Your task to perform on an android device: install app "Google Translate" Image 0: 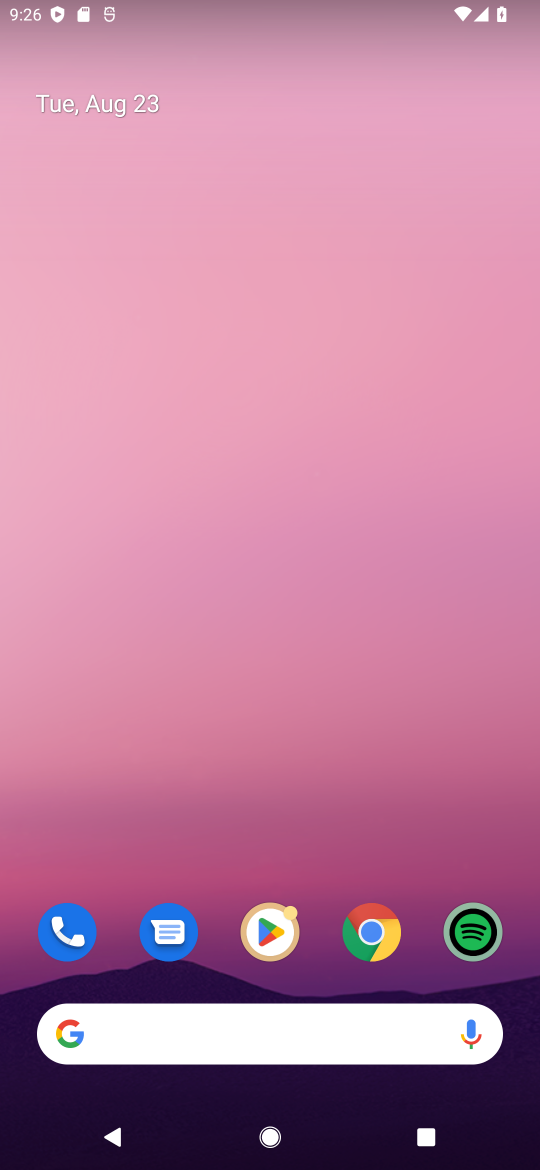
Step 0: click (274, 937)
Your task to perform on an android device: install app "Google Translate" Image 1: 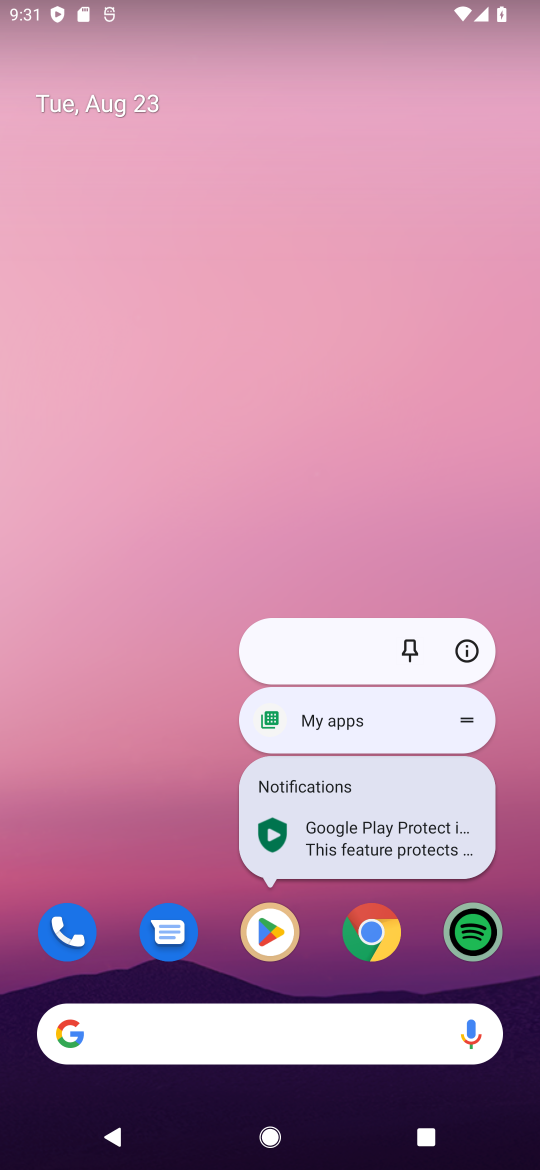
Step 1: click (275, 928)
Your task to perform on an android device: install app "Google Translate" Image 2: 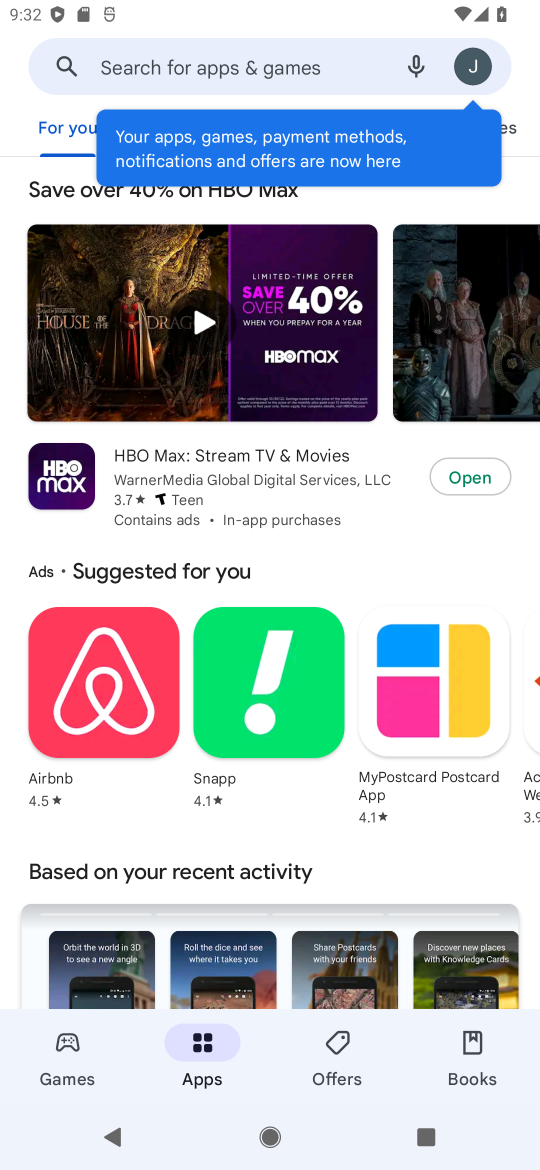
Step 2: click (288, 57)
Your task to perform on an android device: install app "Google Translate" Image 3: 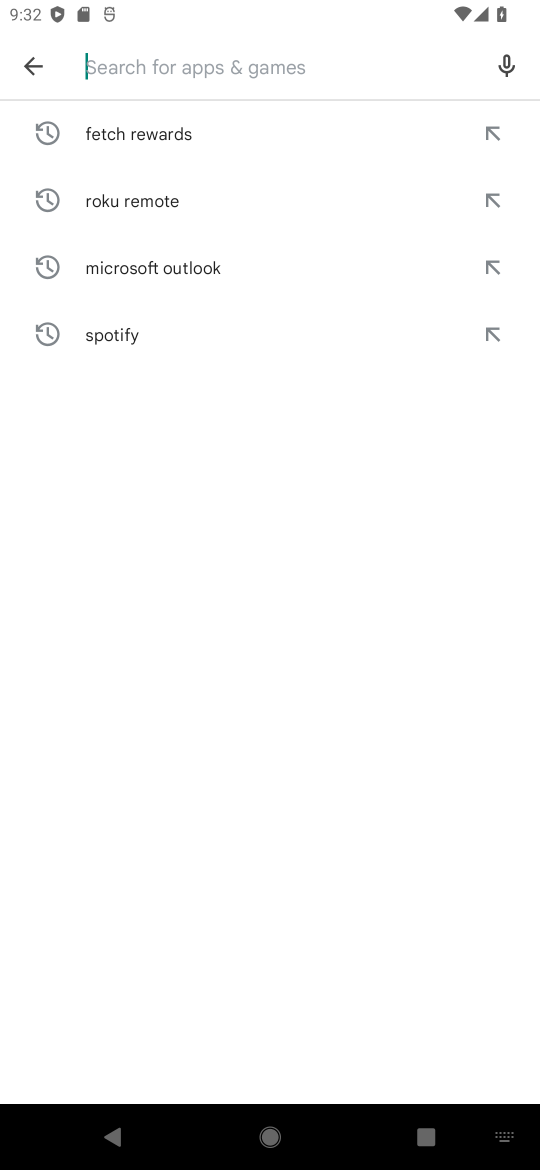
Step 3: click (163, 81)
Your task to perform on an android device: install app "Google Translate" Image 4: 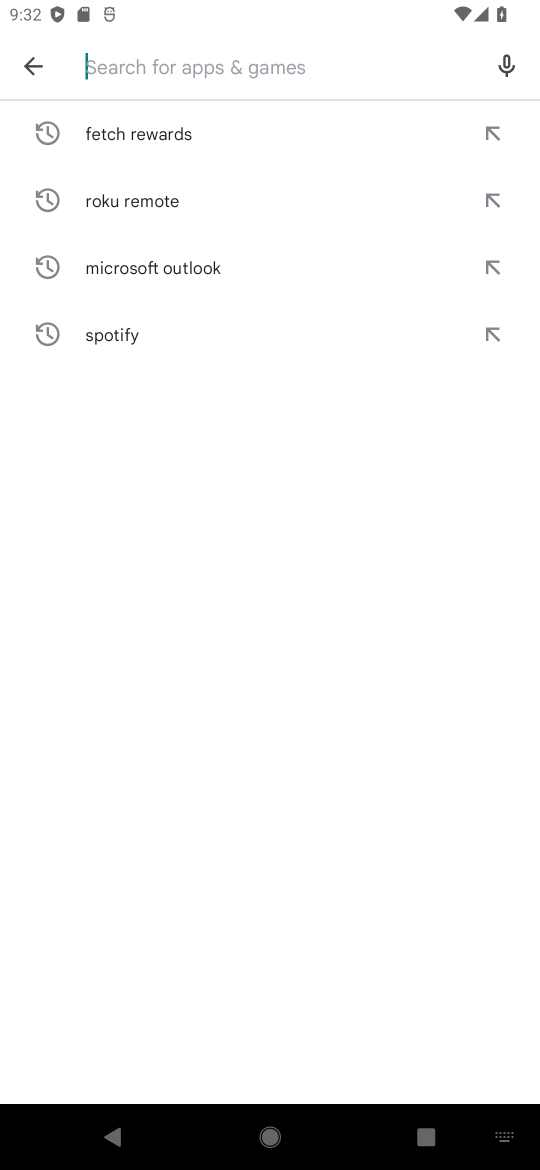
Step 4: type "Google Translat"
Your task to perform on an android device: install app "Google Translate" Image 5: 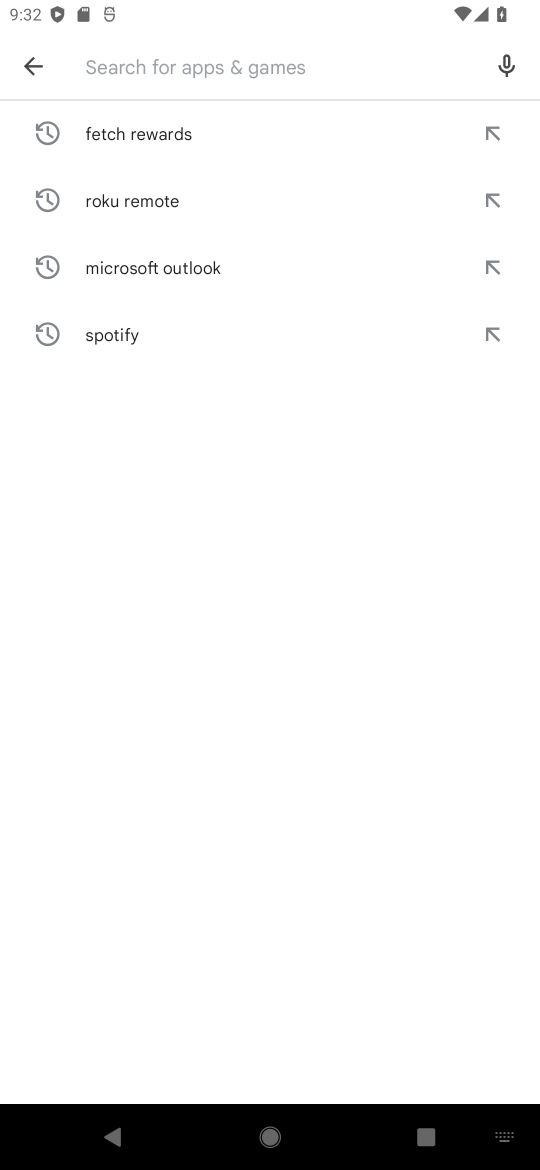
Step 5: click (240, 760)
Your task to perform on an android device: install app "Google Translate" Image 6: 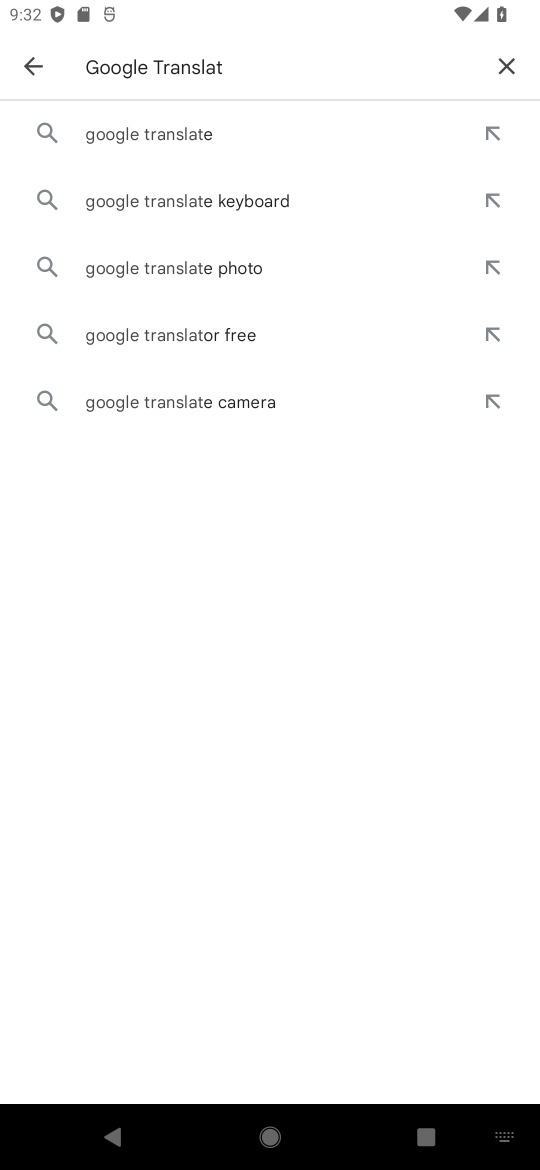
Step 6: click (177, 129)
Your task to perform on an android device: install app "Google Translate" Image 7: 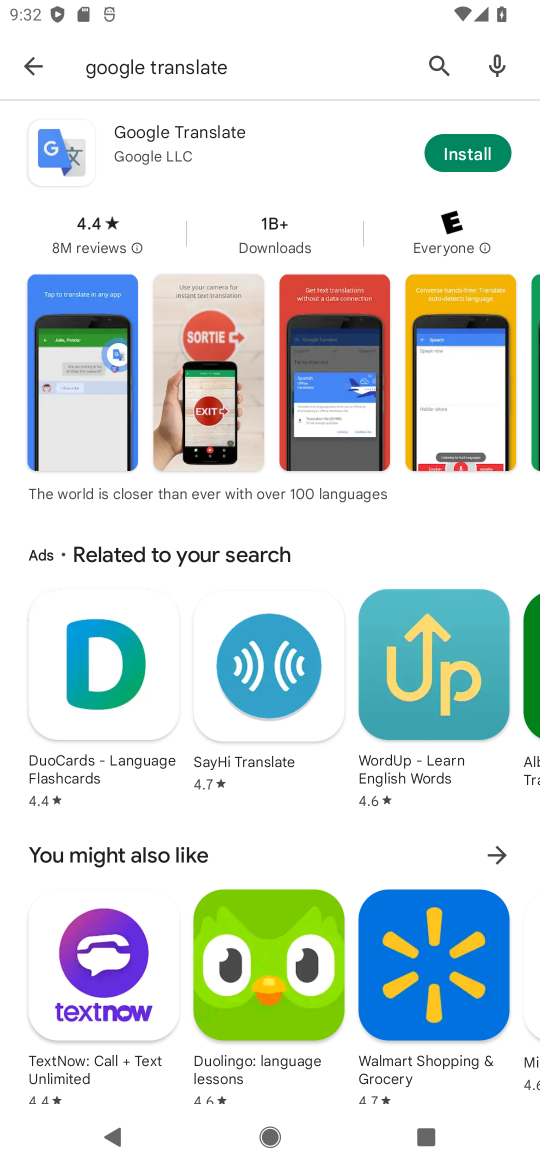
Step 7: click (456, 154)
Your task to perform on an android device: install app "Google Translate" Image 8: 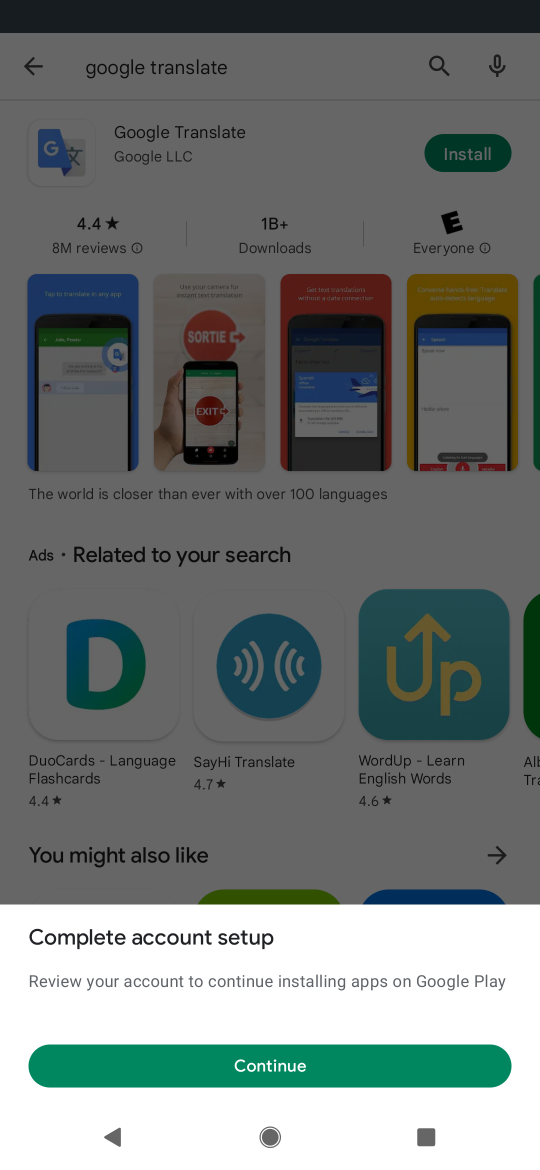
Step 8: click (235, 1061)
Your task to perform on an android device: install app "Google Translate" Image 9: 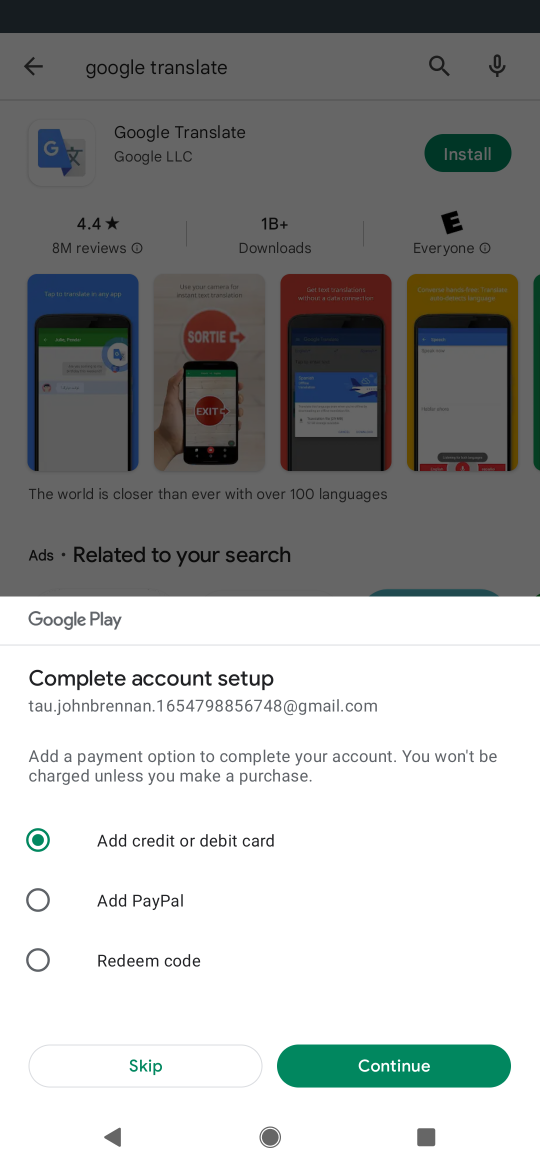
Step 9: click (135, 1064)
Your task to perform on an android device: install app "Google Translate" Image 10: 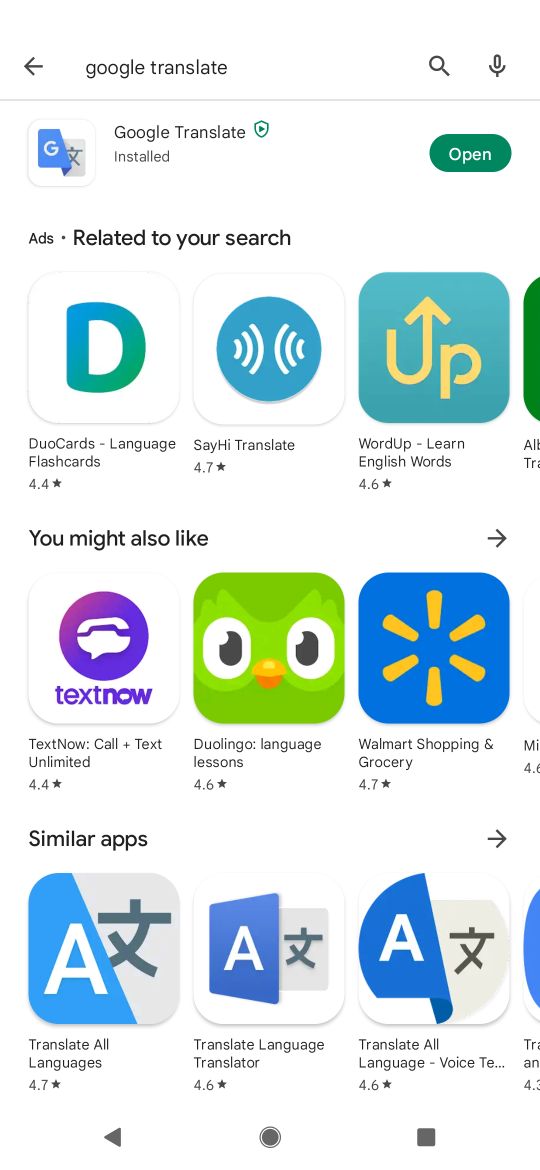
Step 10: task complete